Your task to perform on an android device: Go to Amazon Image 0: 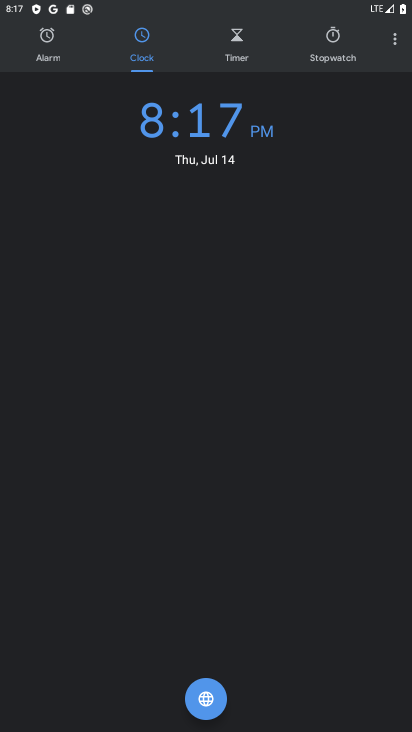
Step 0: press home button
Your task to perform on an android device: Go to Amazon Image 1: 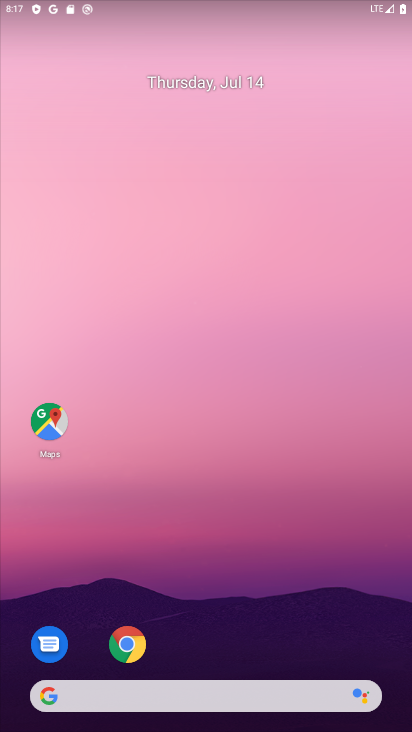
Step 1: drag from (213, 675) to (254, 165)
Your task to perform on an android device: Go to Amazon Image 2: 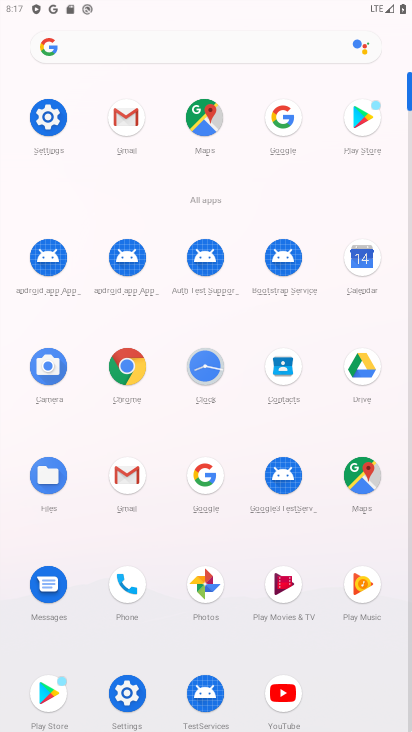
Step 2: click (126, 371)
Your task to perform on an android device: Go to Amazon Image 3: 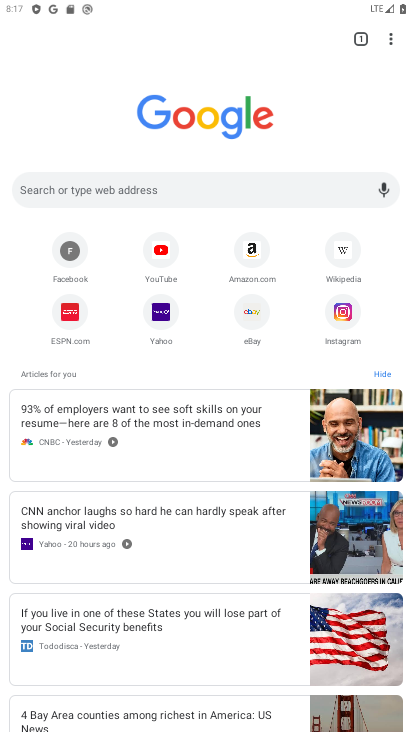
Step 3: click (256, 249)
Your task to perform on an android device: Go to Amazon Image 4: 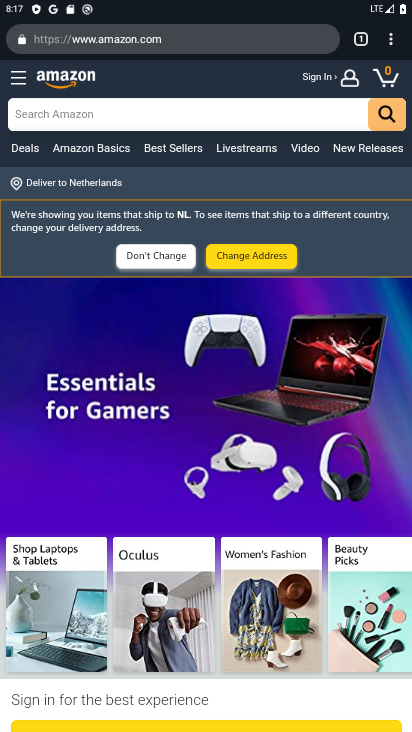
Step 4: task complete